Your task to perform on an android device: Search for pizza restaurants on Maps Image 0: 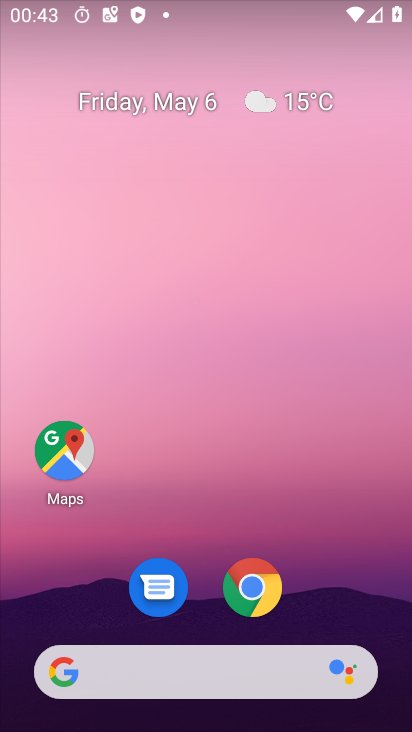
Step 0: click (46, 447)
Your task to perform on an android device: Search for pizza restaurants on Maps Image 1: 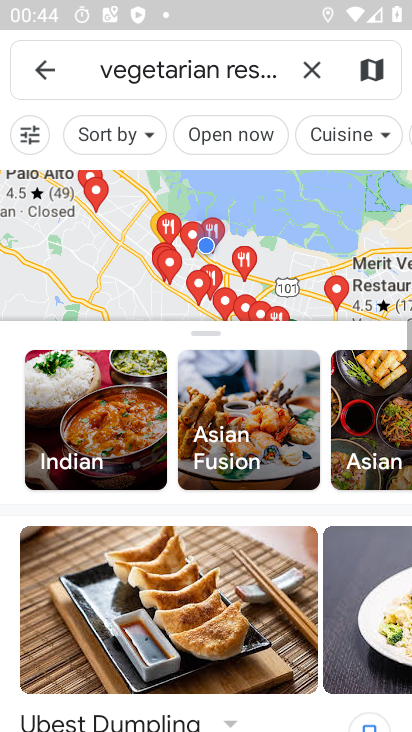
Step 1: click (312, 65)
Your task to perform on an android device: Search for pizza restaurants on Maps Image 2: 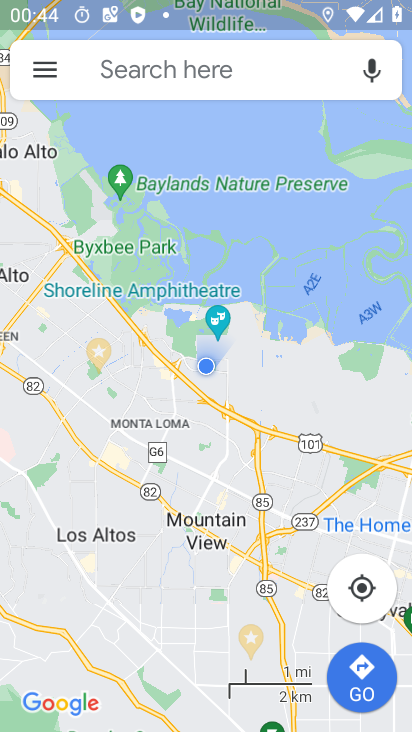
Step 2: click (210, 66)
Your task to perform on an android device: Search for pizza restaurants on Maps Image 3: 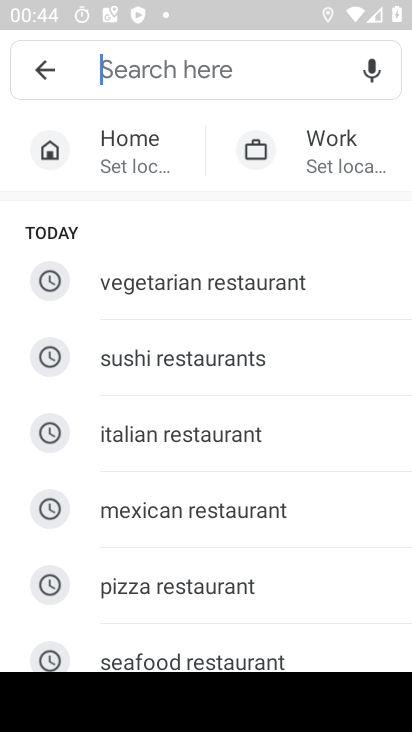
Step 3: type "pizza restaurants"
Your task to perform on an android device: Search for pizza restaurants on Maps Image 4: 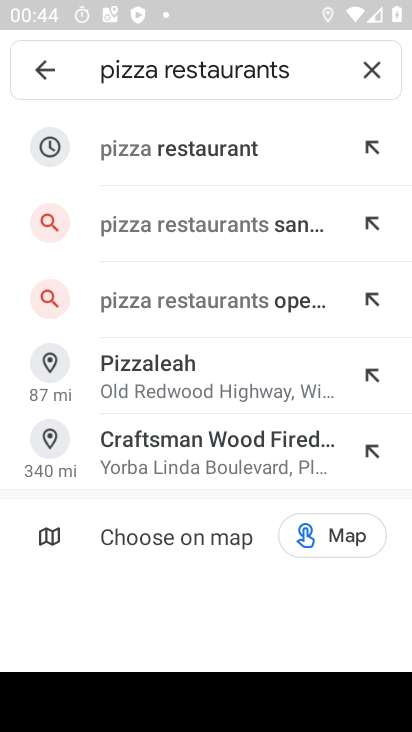
Step 4: click (233, 137)
Your task to perform on an android device: Search for pizza restaurants on Maps Image 5: 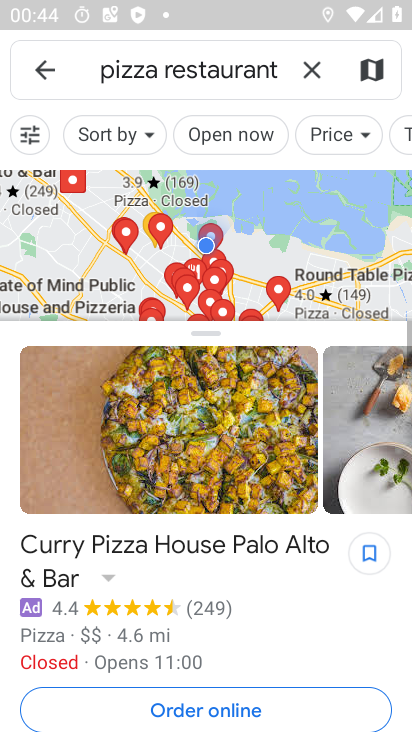
Step 5: task complete